Your task to perform on an android device: Open Google Maps and go to "Timeline" Image 0: 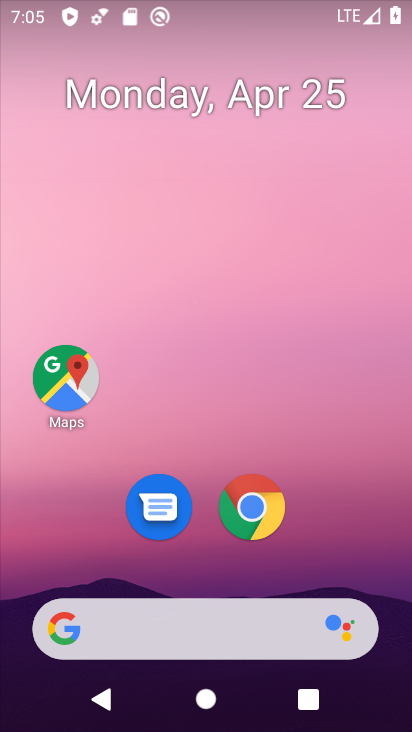
Step 0: click (257, 505)
Your task to perform on an android device: Open Google Maps and go to "Timeline" Image 1: 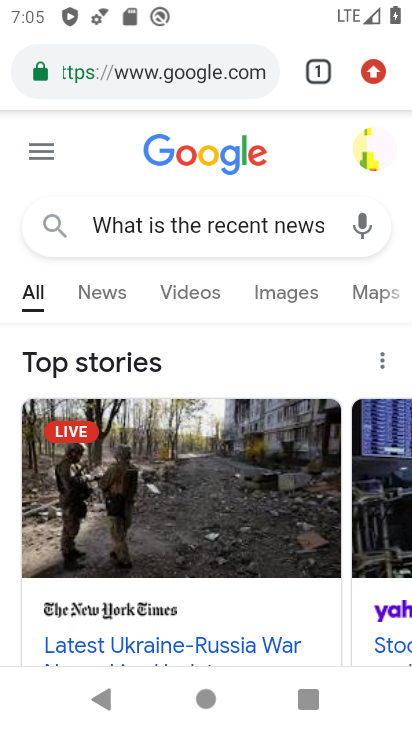
Step 1: press home button
Your task to perform on an android device: Open Google Maps and go to "Timeline" Image 2: 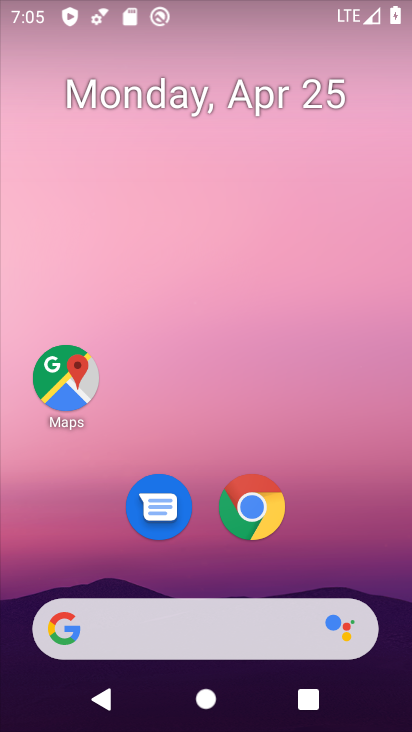
Step 2: drag from (386, 574) to (312, 58)
Your task to perform on an android device: Open Google Maps and go to "Timeline" Image 3: 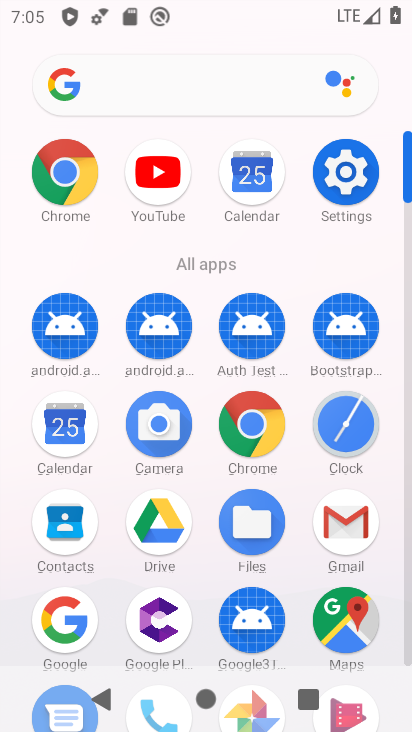
Step 3: click (332, 620)
Your task to perform on an android device: Open Google Maps and go to "Timeline" Image 4: 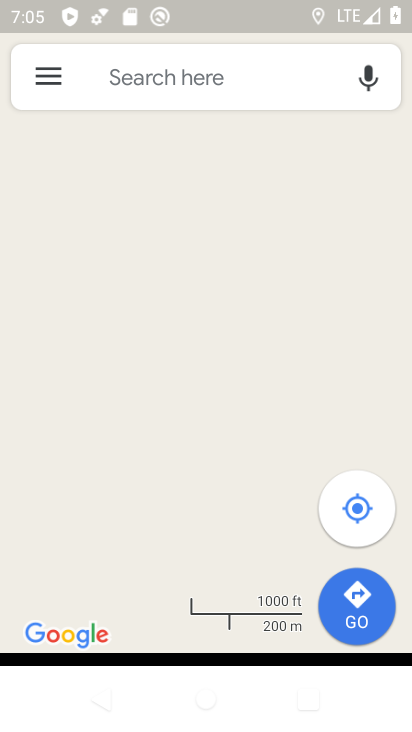
Step 4: click (55, 79)
Your task to perform on an android device: Open Google Maps and go to "Timeline" Image 5: 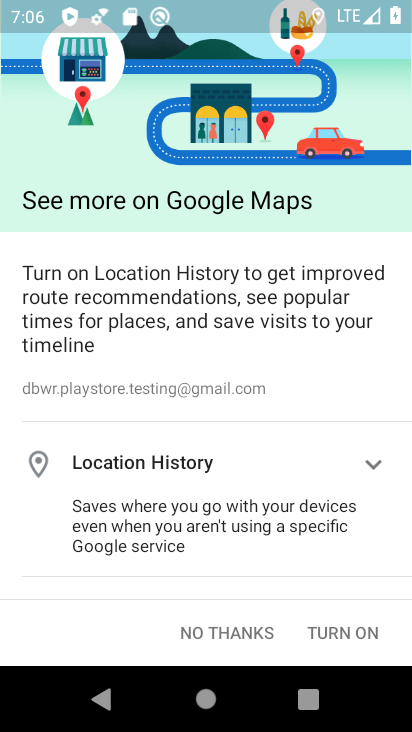
Step 5: click (203, 631)
Your task to perform on an android device: Open Google Maps and go to "Timeline" Image 6: 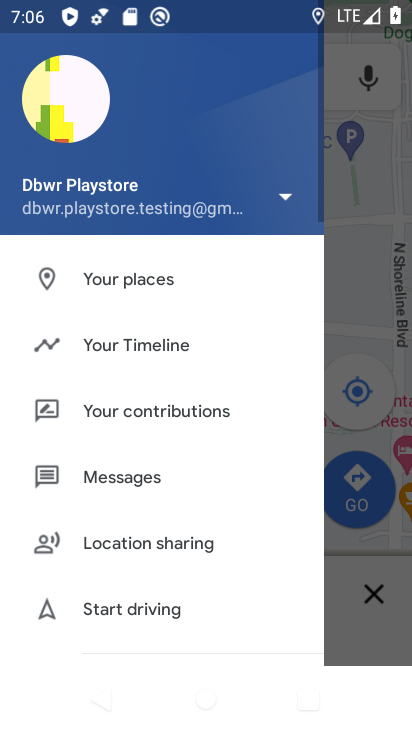
Step 6: click (126, 353)
Your task to perform on an android device: Open Google Maps and go to "Timeline" Image 7: 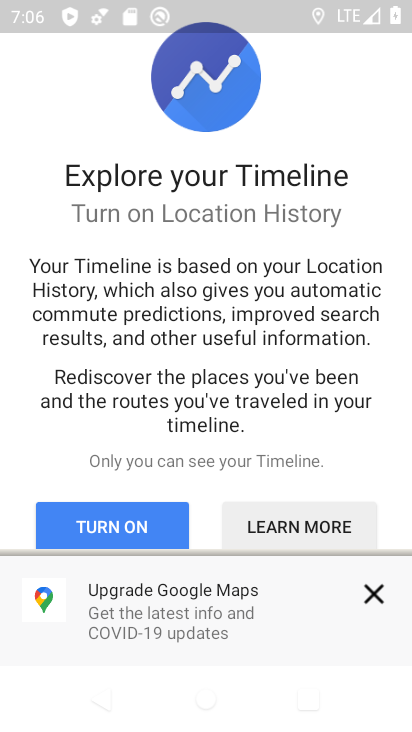
Step 7: click (370, 600)
Your task to perform on an android device: Open Google Maps and go to "Timeline" Image 8: 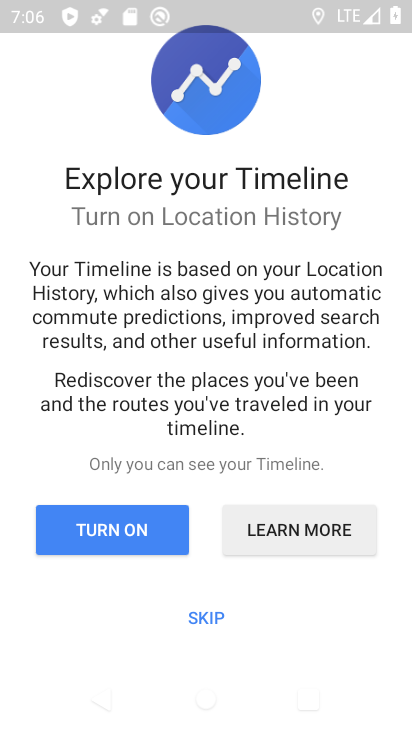
Step 8: click (207, 614)
Your task to perform on an android device: Open Google Maps and go to "Timeline" Image 9: 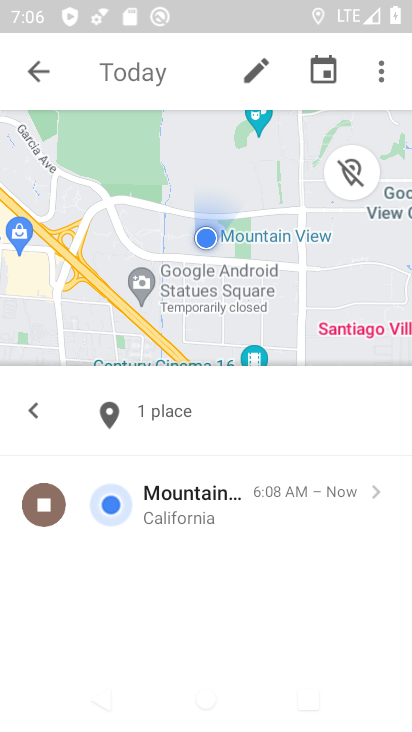
Step 9: task complete